Your task to perform on an android device: turn smart compose on in the gmail app Image 0: 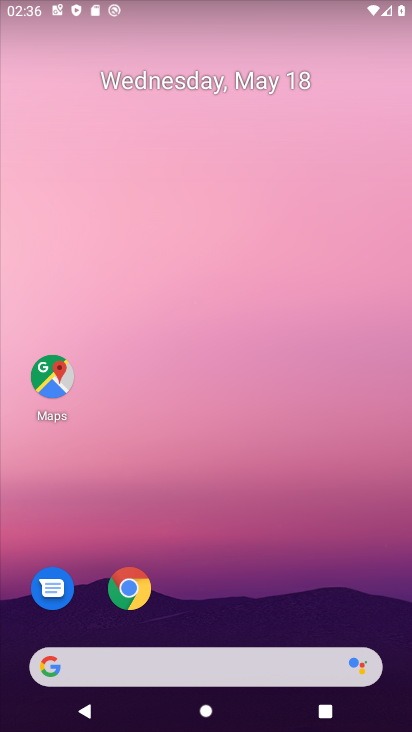
Step 0: click (14, 729)
Your task to perform on an android device: turn smart compose on in the gmail app Image 1: 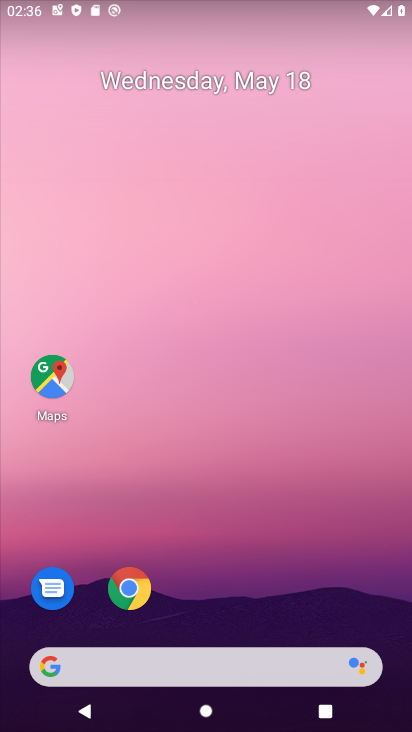
Step 1: drag from (38, 551) to (261, 128)
Your task to perform on an android device: turn smart compose on in the gmail app Image 2: 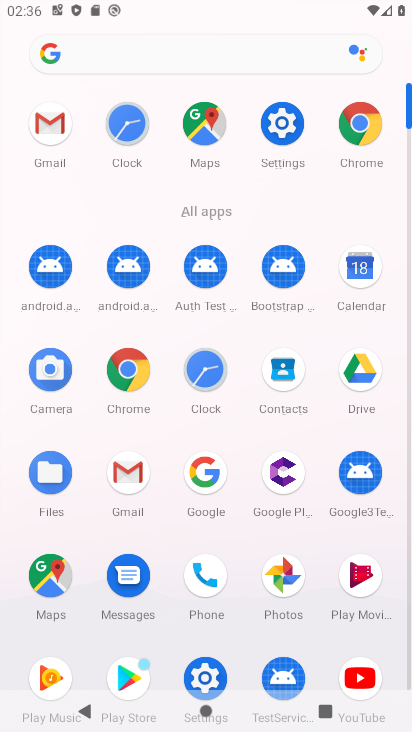
Step 2: click (41, 120)
Your task to perform on an android device: turn smart compose on in the gmail app Image 3: 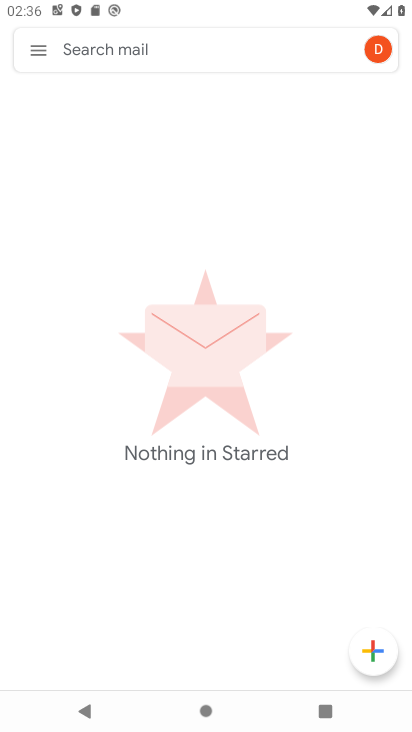
Step 3: click (36, 47)
Your task to perform on an android device: turn smart compose on in the gmail app Image 4: 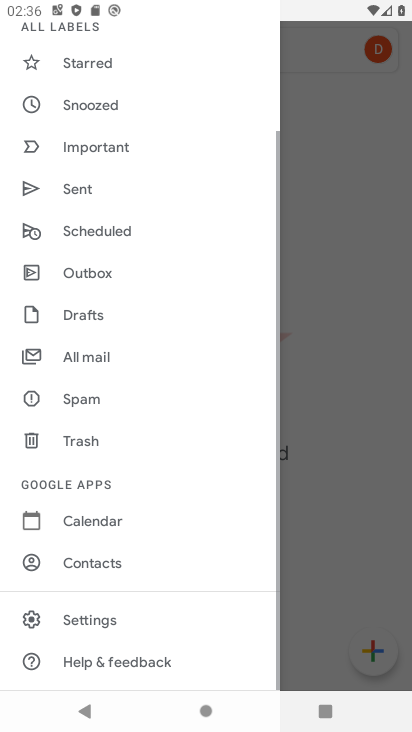
Step 4: click (124, 615)
Your task to perform on an android device: turn smart compose on in the gmail app Image 5: 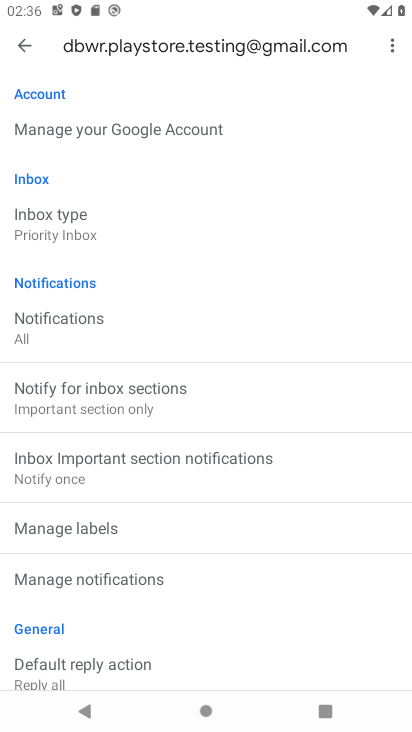
Step 5: task complete